Your task to perform on an android device: What's on my calendar tomorrow? Image 0: 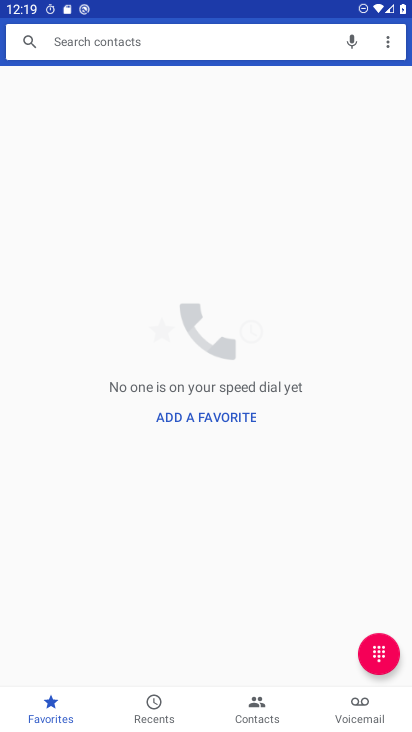
Step 0: press home button
Your task to perform on an android device: What's on my calendar tomorrow? Image 1: 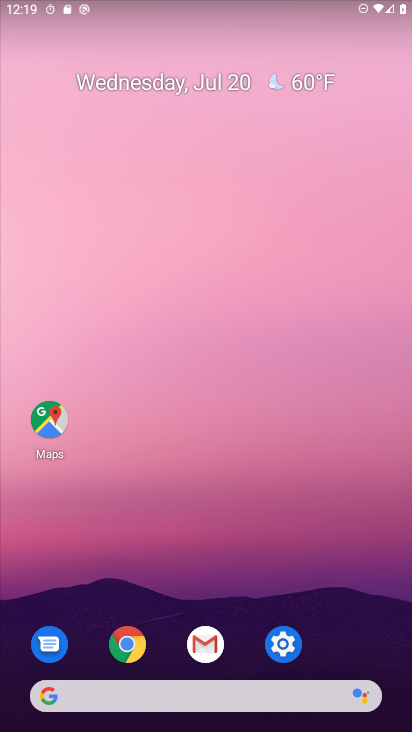
Step 1: drag from (243, 710) to (408, 140)
Your task to perform on an android device: What's on my calendar tomorrow? Image 2: 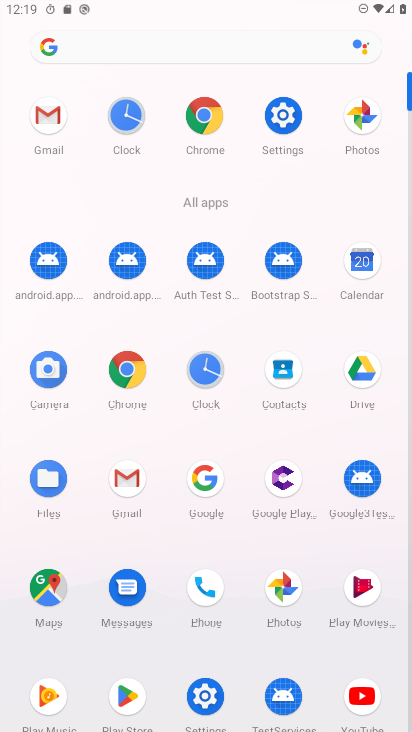
Step 2: click (361, 257)
Your task to perform on an android device: What's on my calendar tomorrow? Image 3: 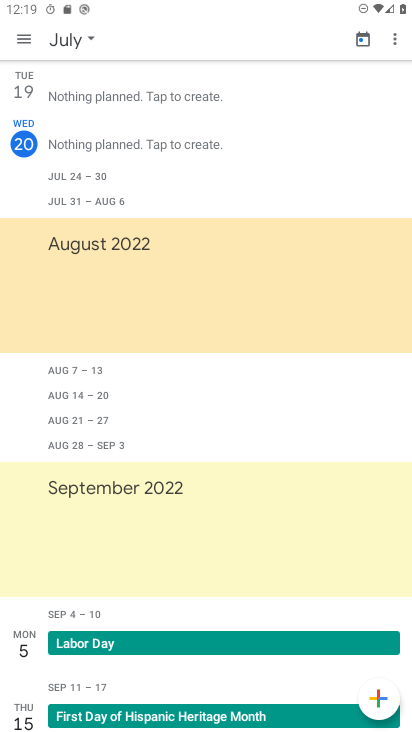
Step 3: click (28, 39)
Your task to perform on an android device: What's on my calendar tomorrow? Image 4: 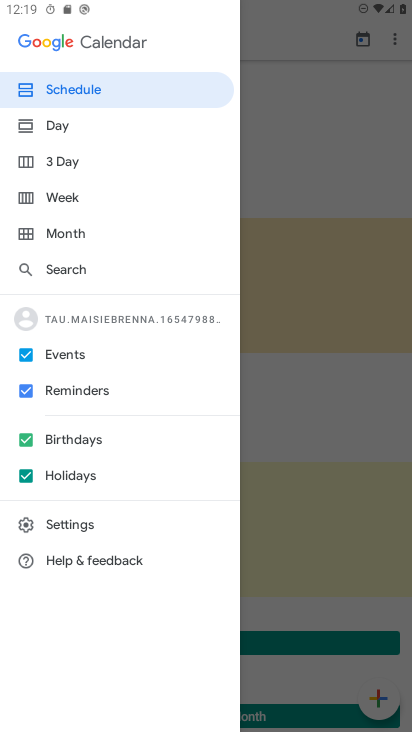
Step 4: click (49, 233)
Your task to perform on an android device: What's on my calendar tomorrow? Image 5: 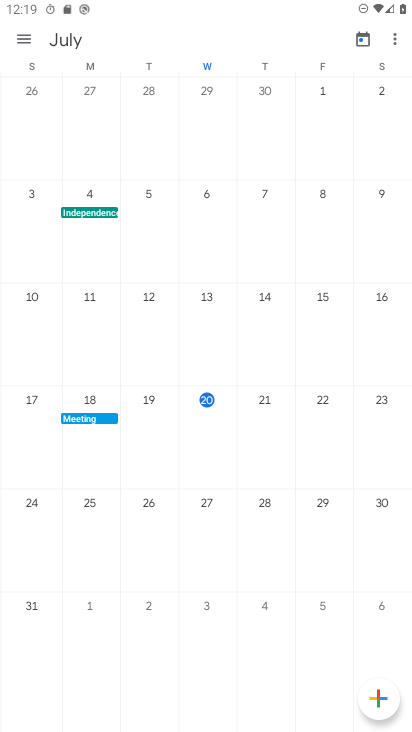
Step 5: click (257, 419)
Your task to perform on an android device: What's on my calendar tomorrow? Image 6: 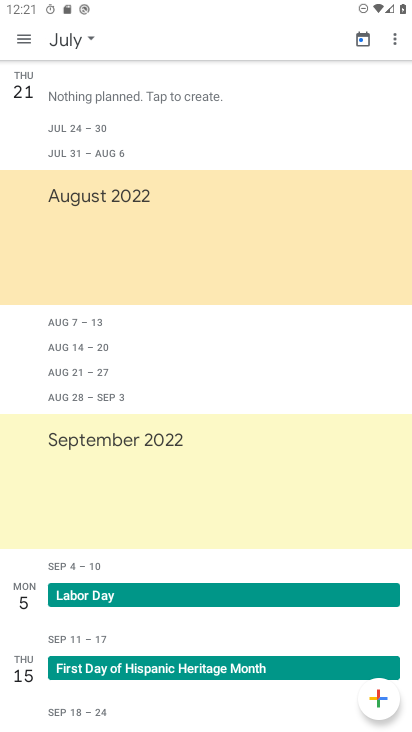
Step 6: task complete